Your task to perform on an android device: change timer sound Image 0: 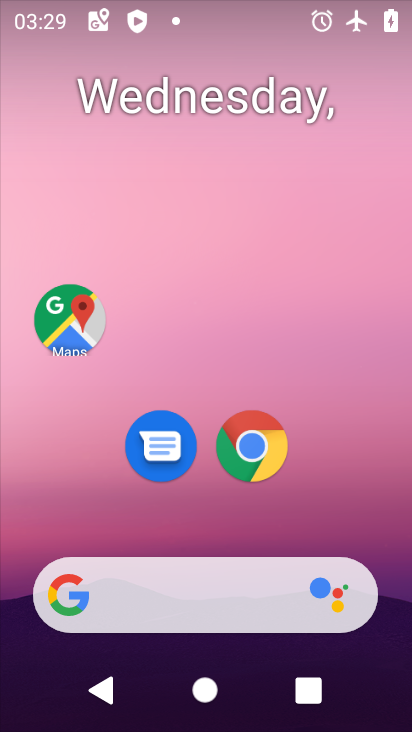
Step 0: drag from (202, 521) to (209, 205)
Your task to perform on an android device: change timer sound Image 1: 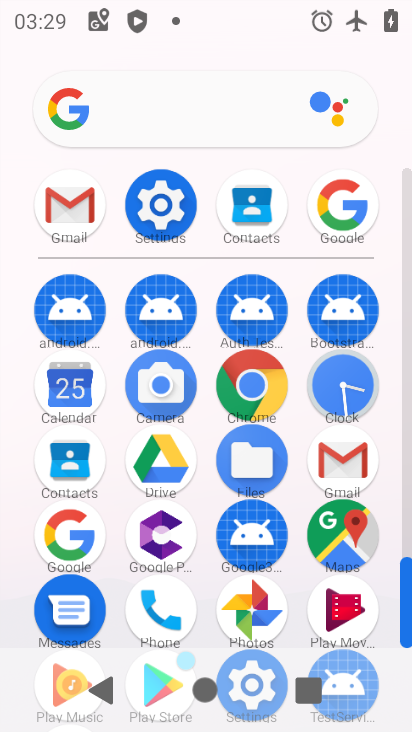
Step 1: click (340, 396)
Your task to perform on an android device: change timer sound Image 2: 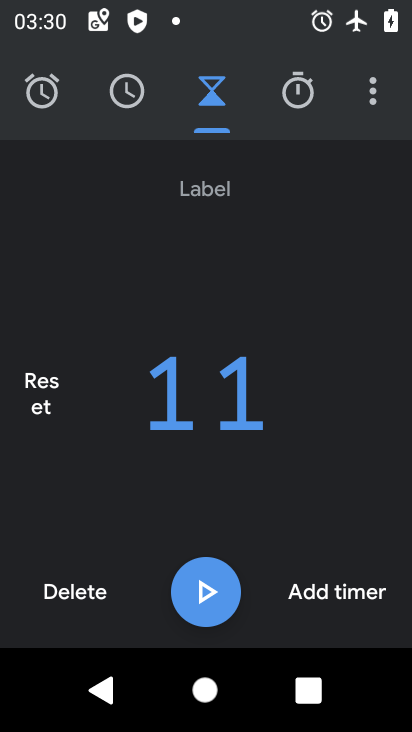
Step 2: click (368, 79)
Your task to perform on an android device: change timer sound Image 3: 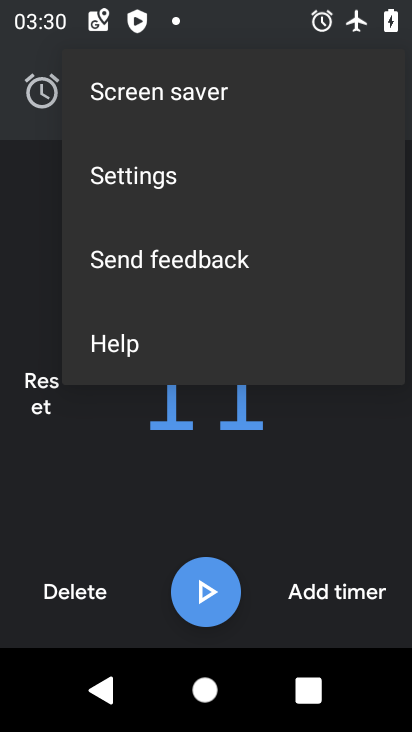
Step 3: click (108, 178)
Your task to perform on an android device: change timer sound Image 4: 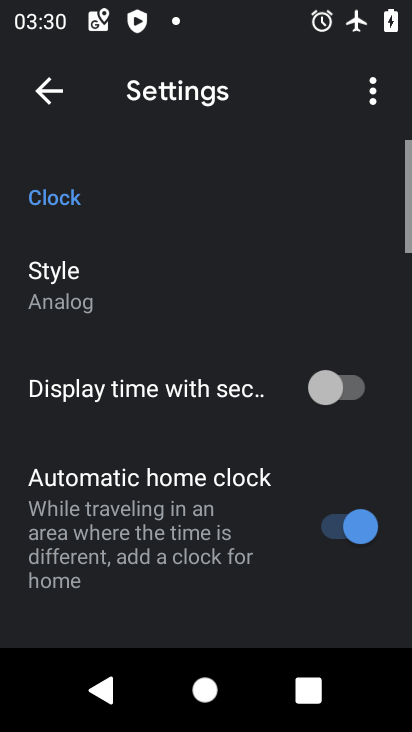
Step 4: drag from (196, 485) to (177, 134)
Your task to perform on an android device: change timer sound Image 5: 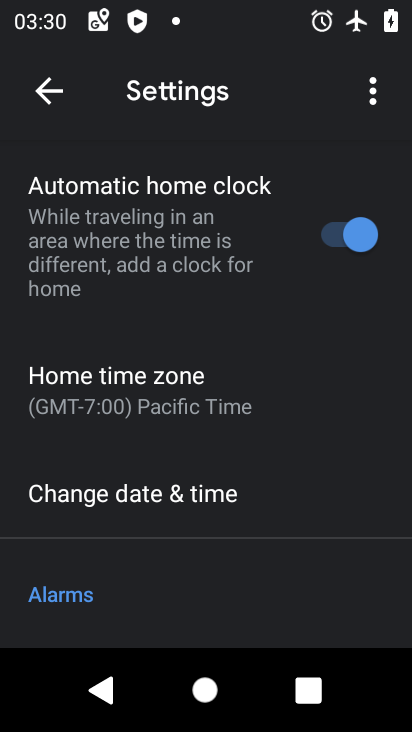
Step 5: drag from (215, 528) to (185, 222)
Your task to perform on an android device: change timer sound Image 6: 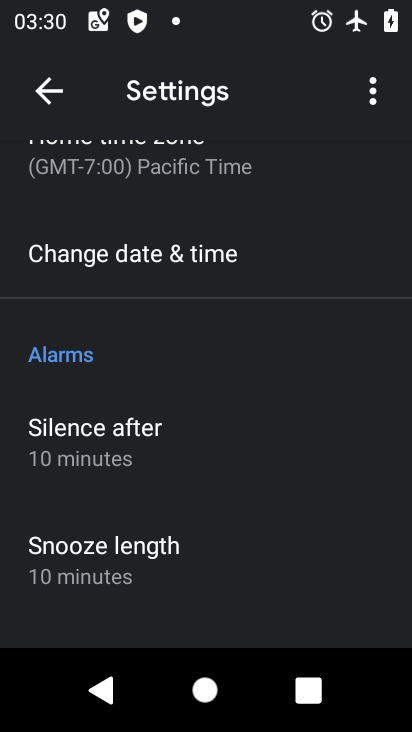
Step 6: drag from (207, 563) to (173, 224)
Your task to perform on an android device: change timer sound Image 7: 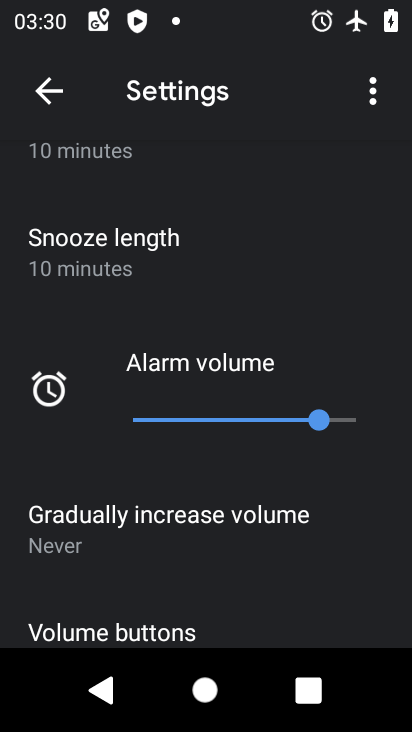
Step 7: drag from (228, 550) to (220, 265)
Your task to perform on an android device: change timer sound Image 8: 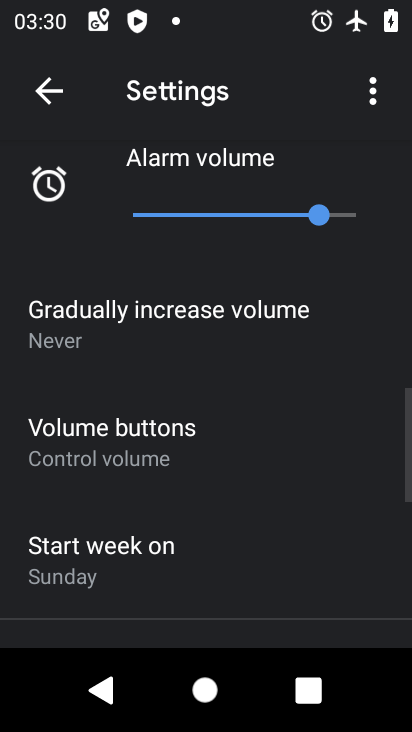
Step 8: drag from (244, 541) to (241, 263)
Your task to perform on an android device: change timer sound Image 9: 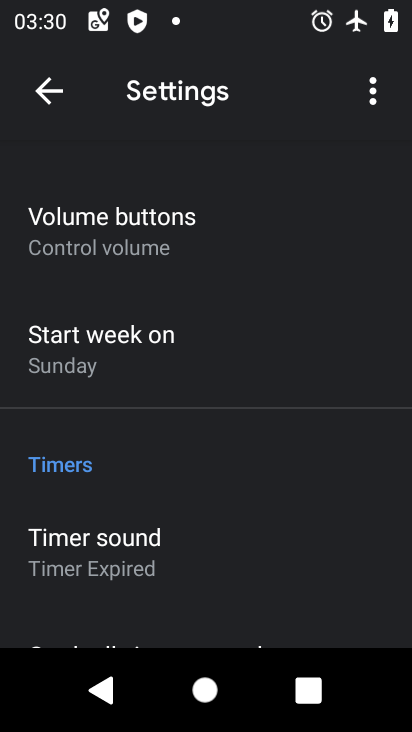
Step 9: click (202, 534)
Your task to perform on an android device: change timer sound Image 10: 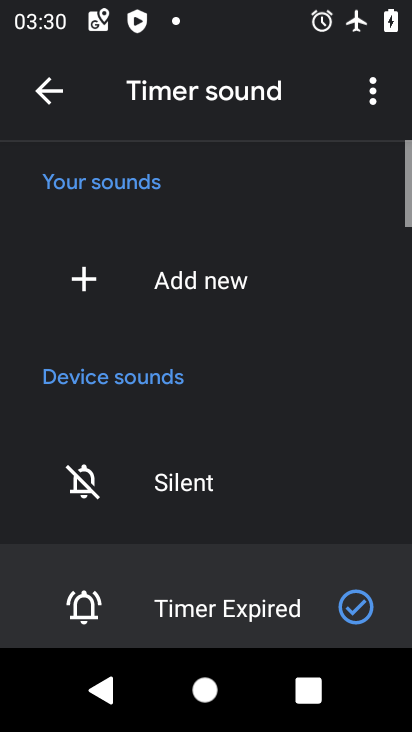
Step 10: drag from (191, 496) to (195, 281)
Your task to perform on an android device: change timer sound Image 11: 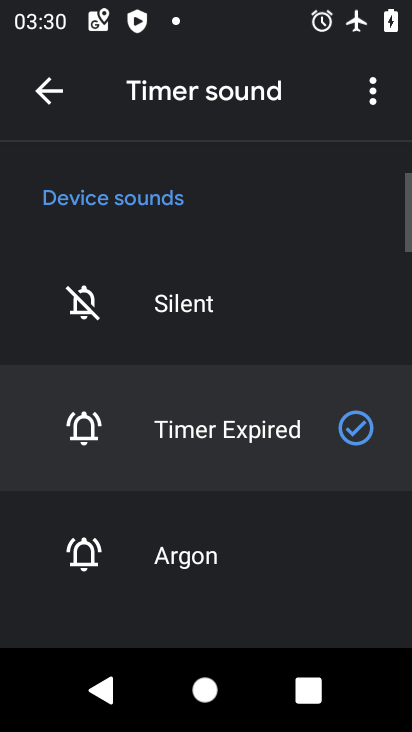
Step 11: click (197, 552)
Your task to perform on an android device: change timer sound Image 12: 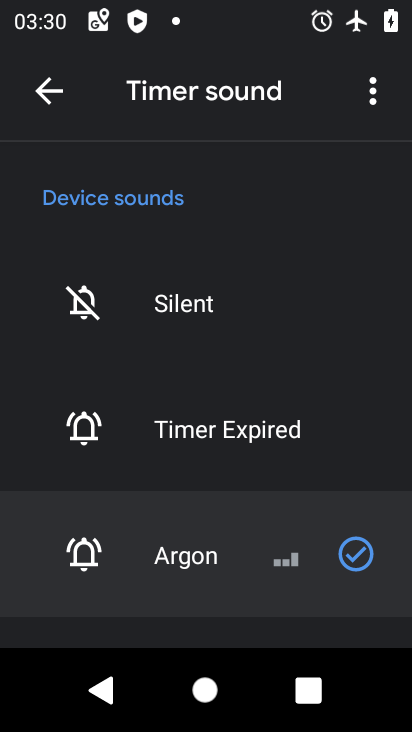
Step 12: task complete